Your task to perform on an android device: allow cookies in the chrome app Image 0: 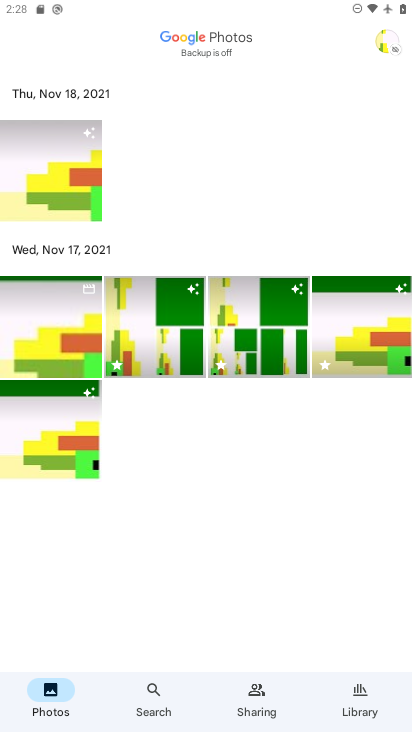
Step 0: press home button
Your task to perform on an android device: allow cookies in the chrome app Image 1: 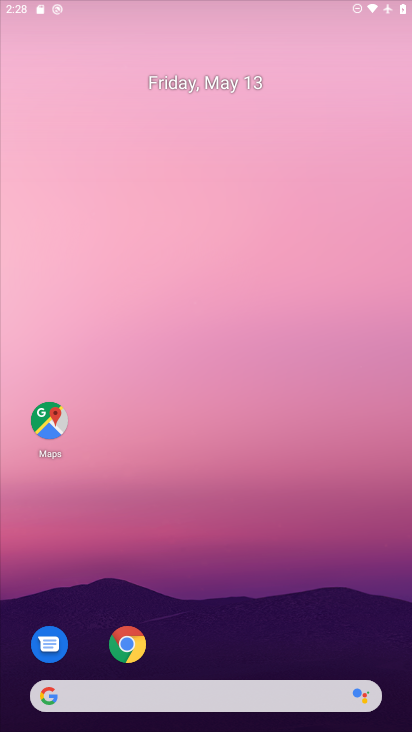
Step 1: drag from (349, 628) to (259, 8)
Your task to perform on an android device: allow cookies in the chrome app Image 2: 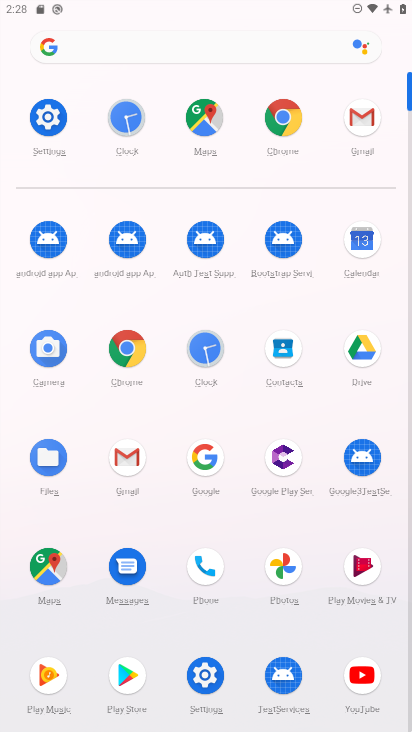
Step 2: click (125, 380)
Your task to perform on an android device: allow cookies in the chrome app Image 3: 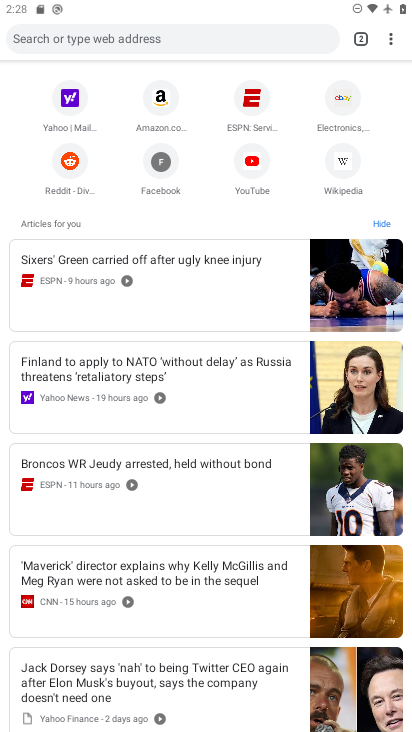
Step 3: click (394, 38)
Your task to perform on an android device: allow cookies in the chrome app Image 4: 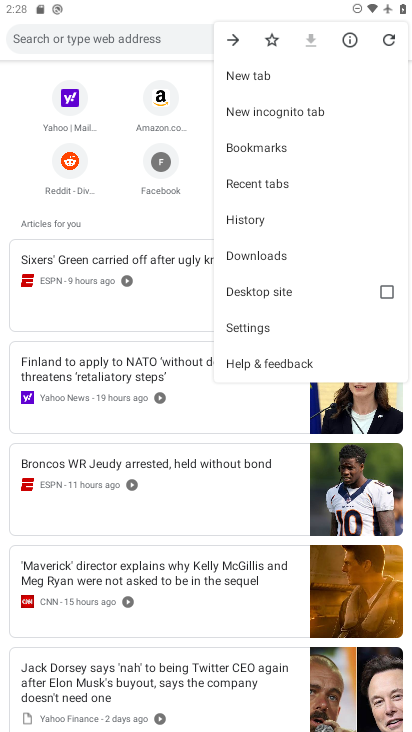
Step 4: click (253, 222)
Your task to perform on an android device: allow cookies in the chrome app Image 5: 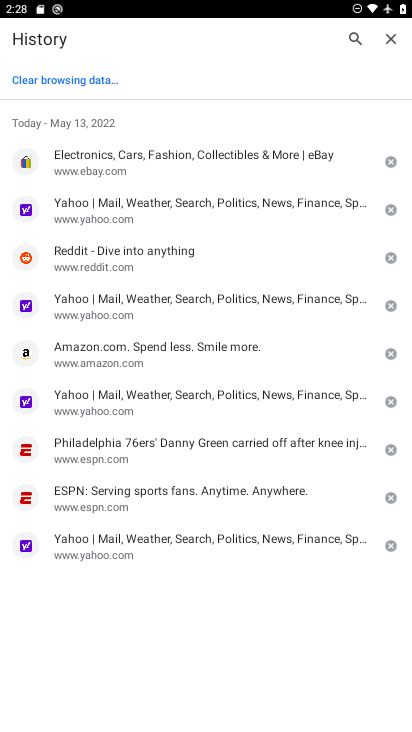
Step 5: click (102, 73)
Your task to perform on an android device: allow cookies in the chrome app Image 6: 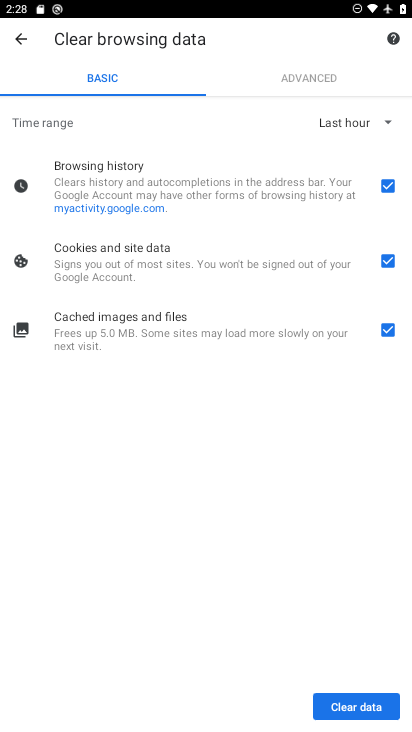
Step 6: task complete